Your task to perform on an android device: What's the weather going to be this weekend? Image 0: 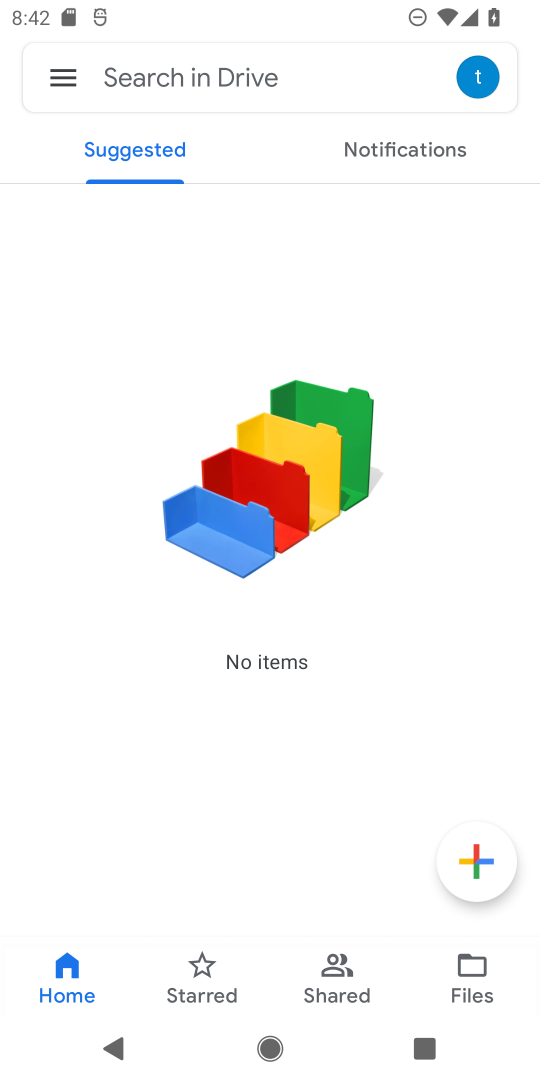
Step 0: press home button
Your task to perform on an android device: What's the weather going to be this weekend? Image 1: 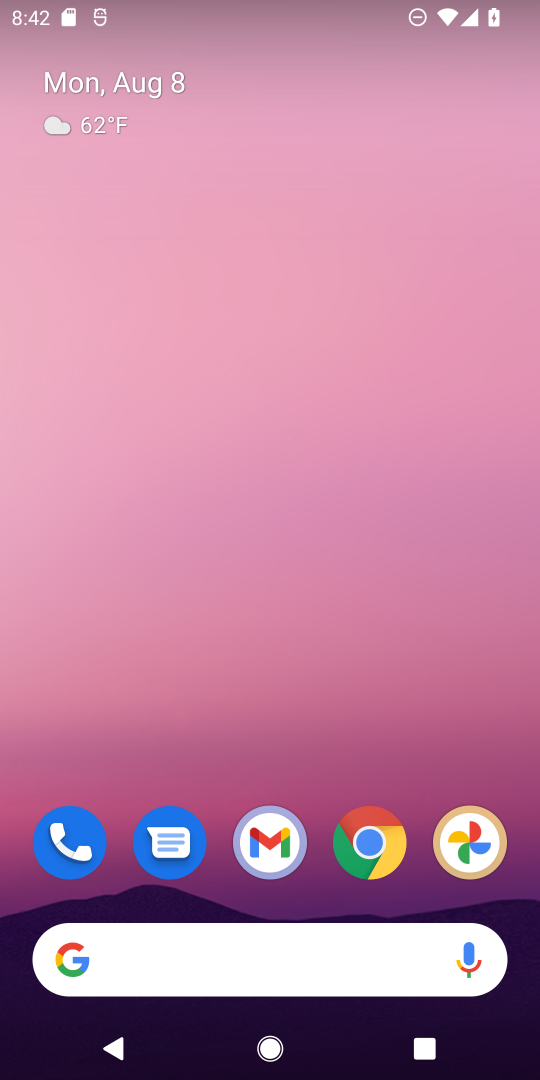
Step 1: click (220, 974)
Your task to perform on an android device: What's the weather going to be this weekend? Image 2: 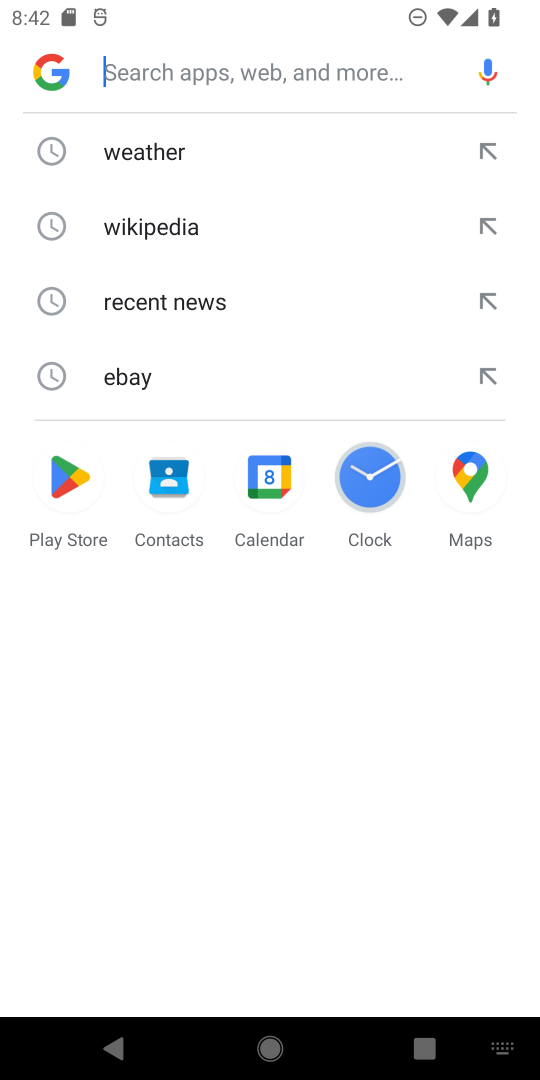
Step 2: click (173, 150)
Your task to perform on an android device: What's the weather going to be this weekend? Image 3: 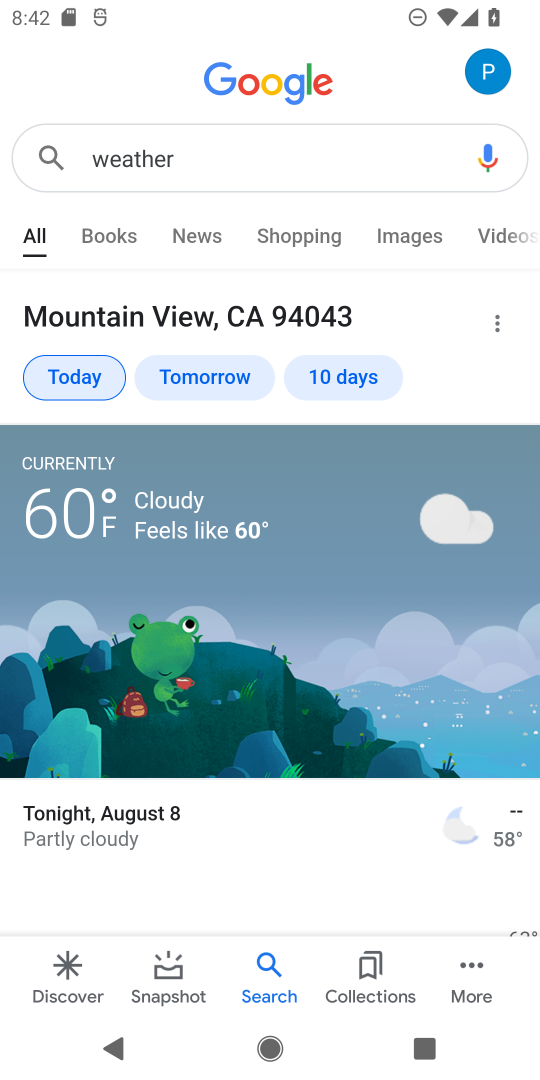
Step 3: click (381, 377)
Your task to perform on an android device: What's the weather going to be this weekend? Image 4: 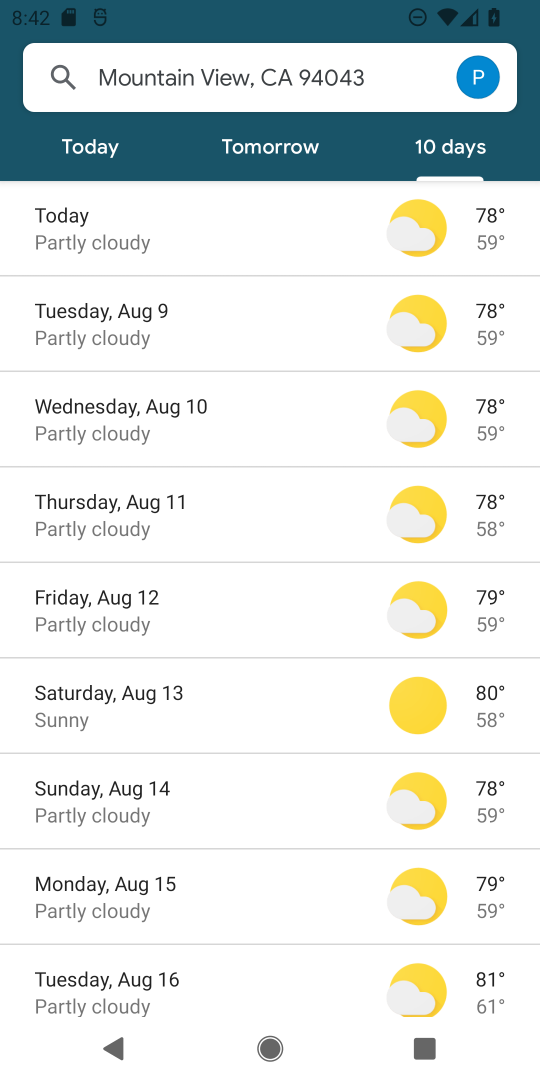
Step 4: click (204, 707)
Your task to perform on an android device: What's the weather going to be this weekend? Image 5: 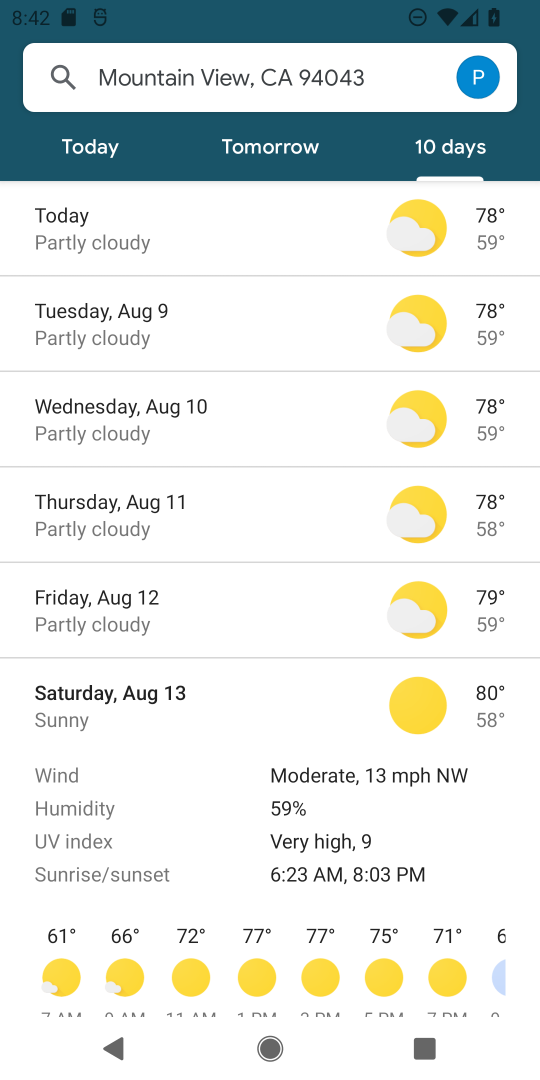
Step 5: task complete